Your task to perform on an android device: Go to Wikipedia Image 0: 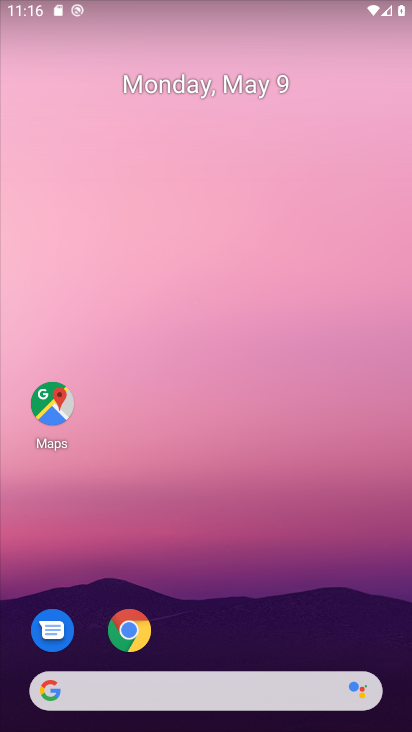
Step 0: drag from (215, 591) to (125, 33)
Your task to perform on an android device: Go to Wikipedia Image 1: 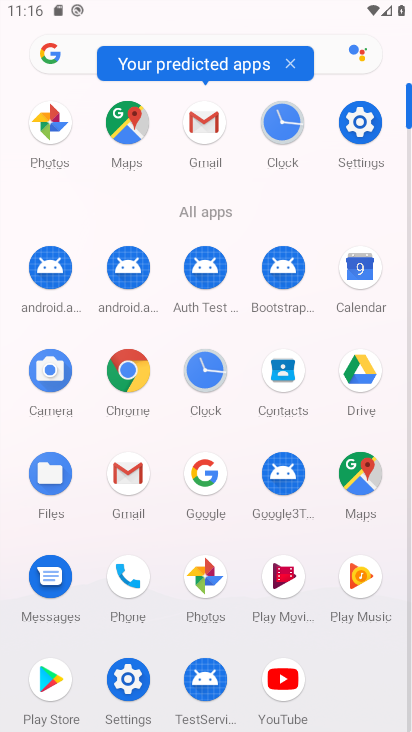
Step 1: drag from (2, 584) to (0, 192)
Your task to perform on an android device: Go to Wikipedia Image 2: 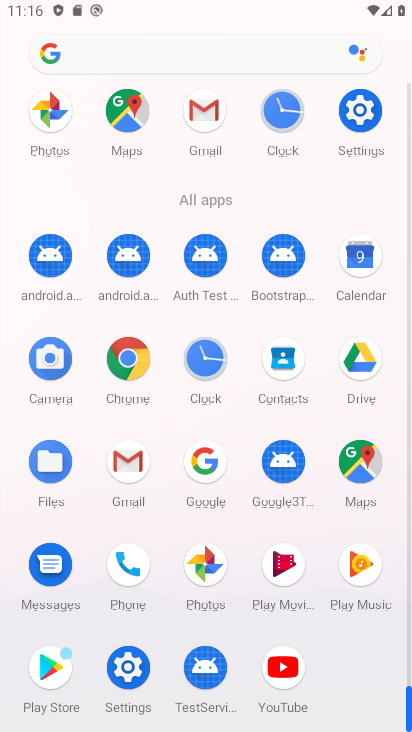
Step 2: click (129, 359)
Your task to perform on an android device: Go to Wikipedia Image 3: 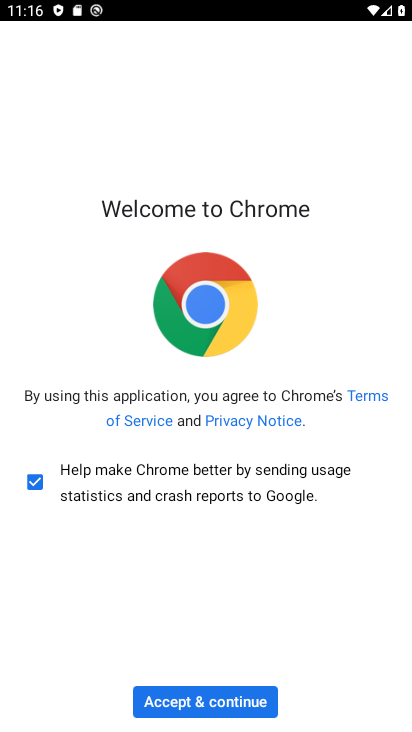
Step 3: click (206, 680)
Your task to perform on an android device: Go to Wikipedia Image 4: 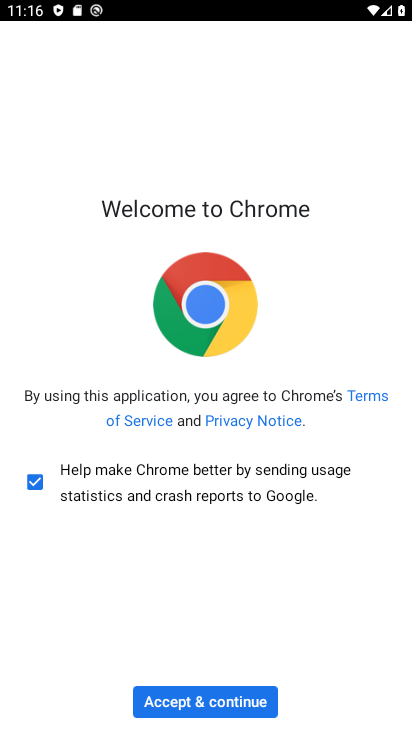
Step 4: click (208, 699)
Your task to perform on an android device: Go to Wikipedia Image 5: 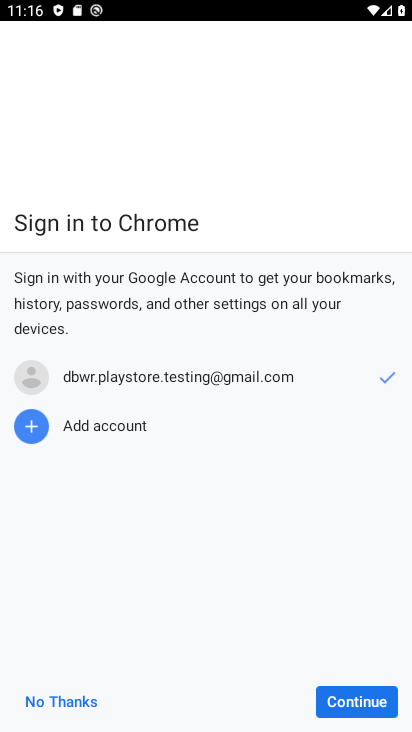
Step 5: click (365, 697)
Your task to perform on an android device: Go to Wikipedia Image 6: 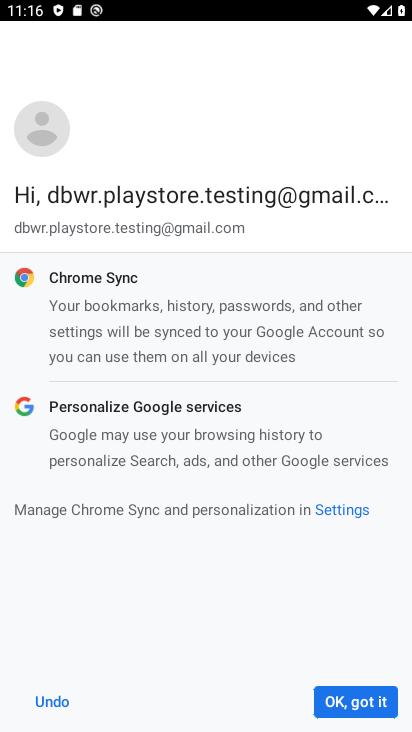
Step 6: click (355, 697)
Your task to perform on an android device: Go to Wikipedia Image 7: 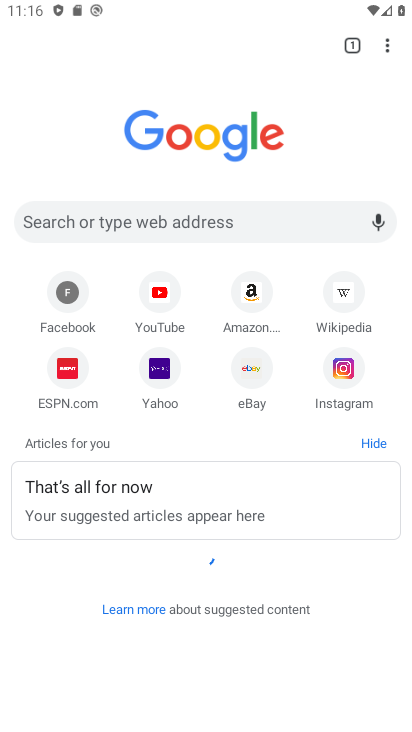
Step 7: click (331, 289)
Your task to perform on an android device: Go to Wikipedia Image 8: 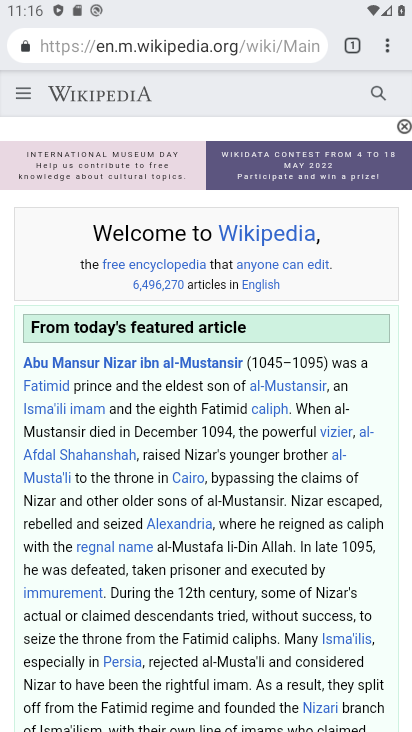
Step 8: task complete